Your task to perform on an android device: delete browsing data in the chrome app Image 0: 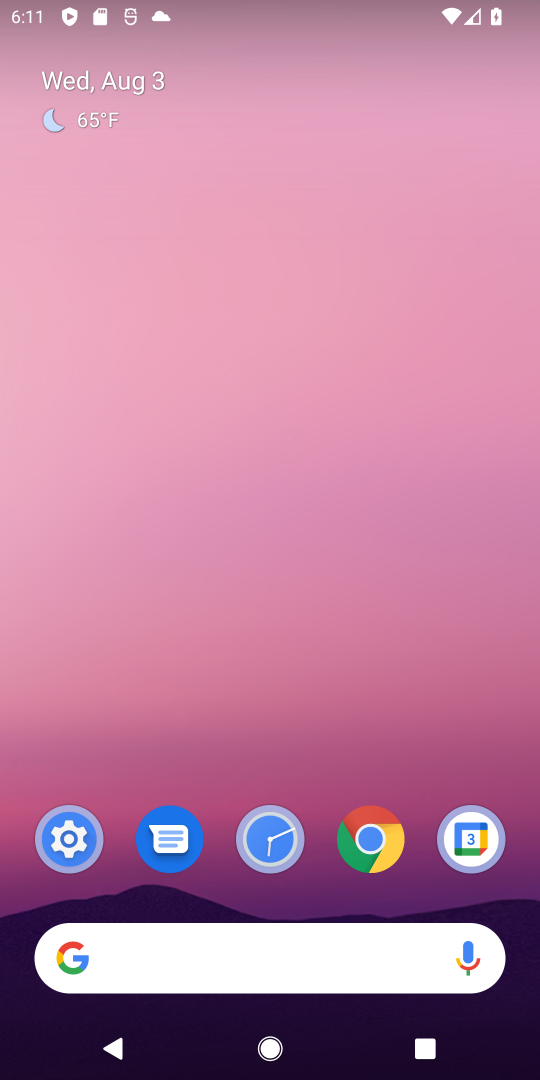
Step 0: click (362, 841)
Your task to perform on an android device: delete browsing data in the chrome app Image 1: 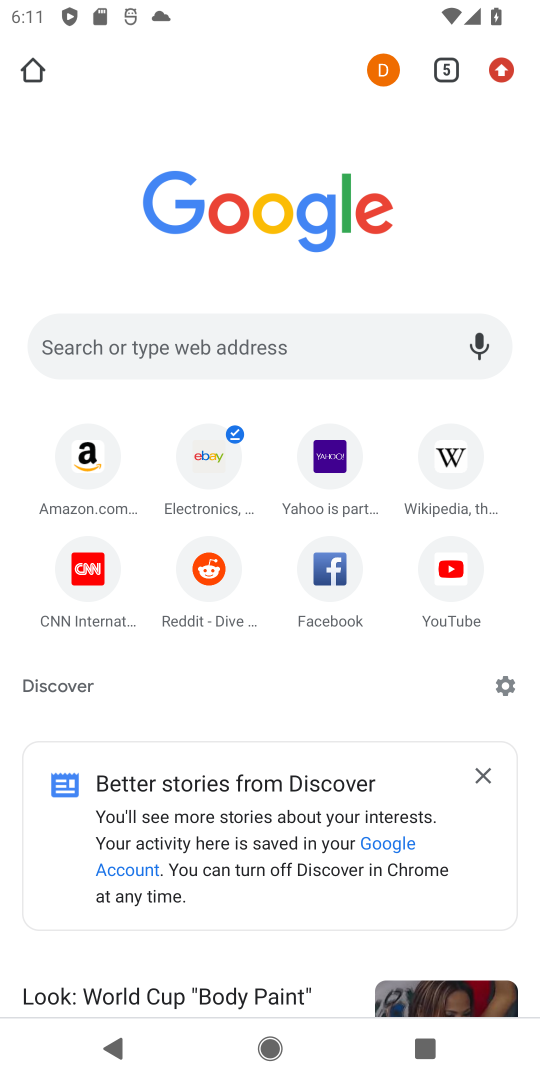
Step 1: drag from (493, 62) to (267, 370)
Your task to perform on an android device: delete browsing data in the chrome app Image 2: 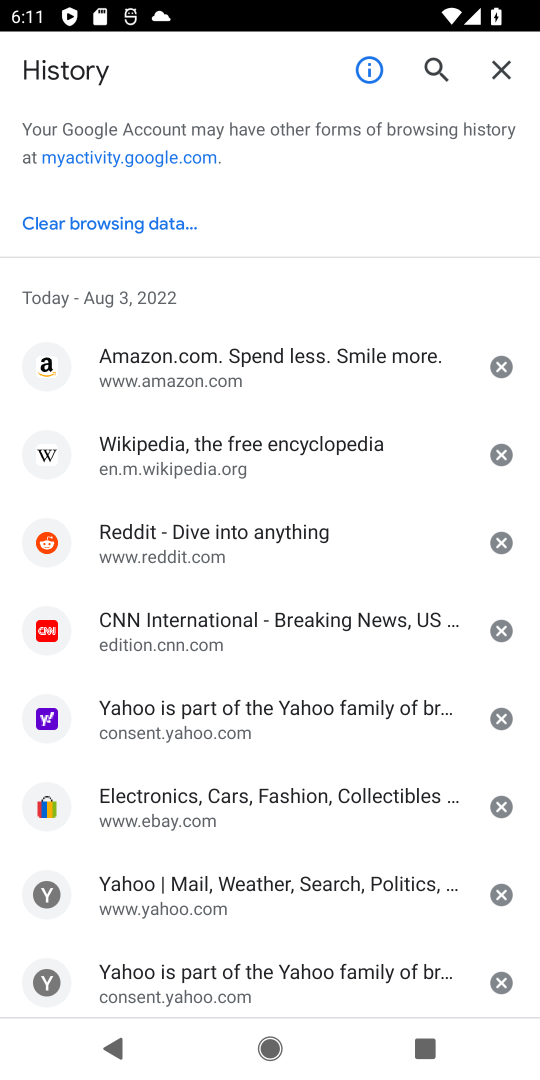
Step 2: click (120, 232)
Your task to perform on an android device: delete browsing data in the chrome app Image 3: 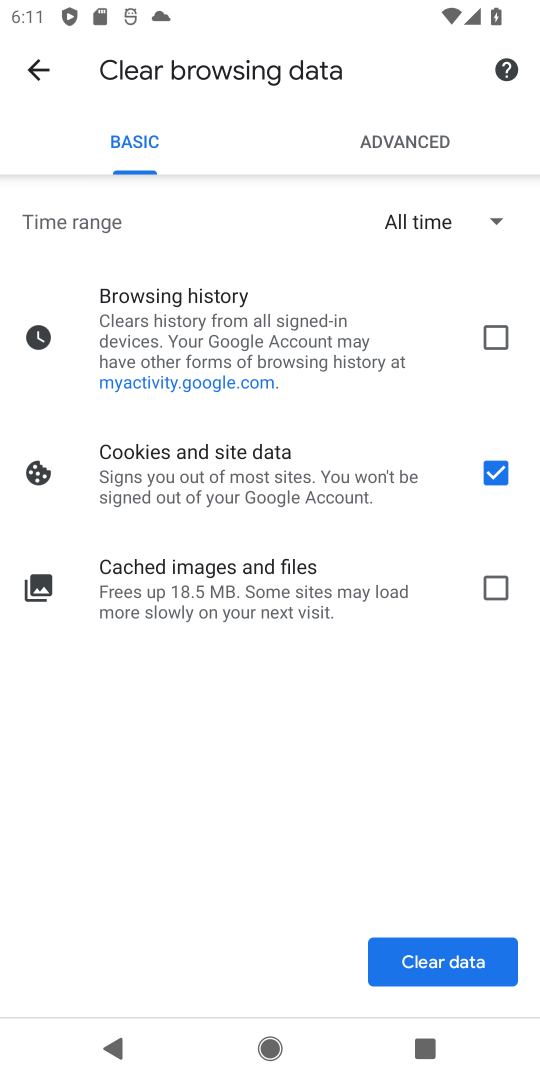
Step 3: click (490, 346)
Your task to perform on an android device: delete browsing data in the chrome app Image 4: 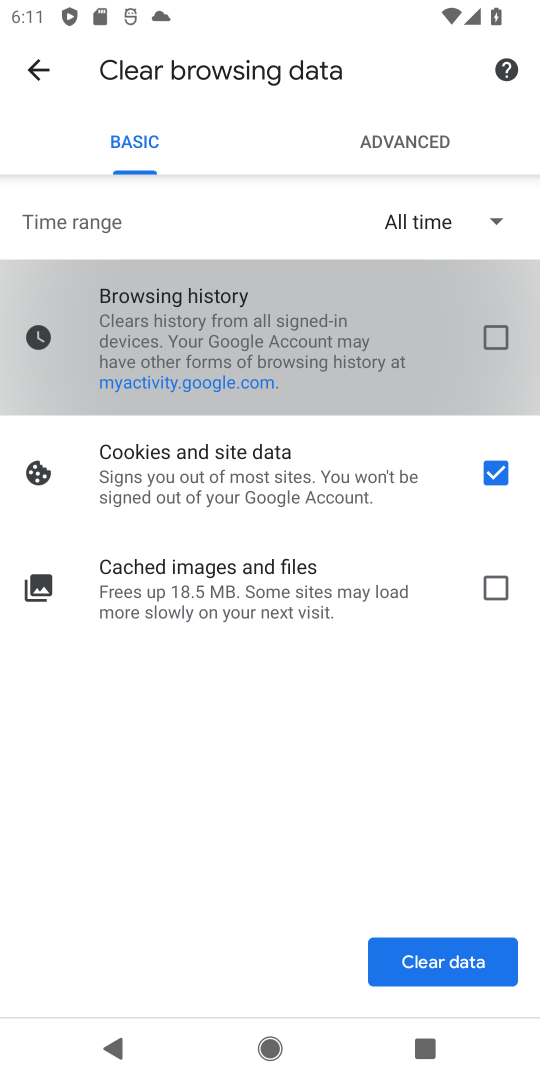
Step 4: click (495, 579)
Your task to perform on an android device: delete browsing data in the chrome app Image 5: 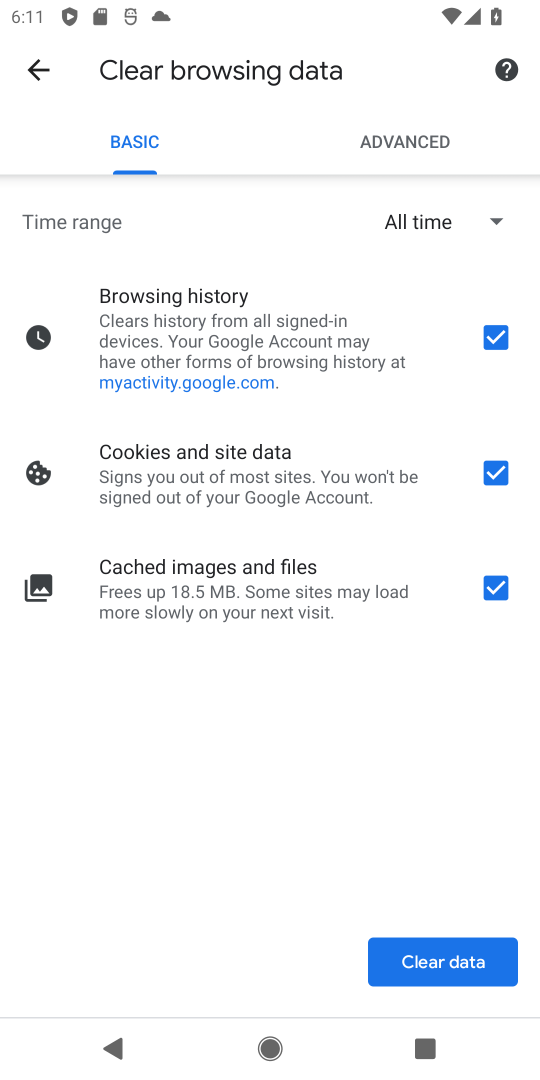
Step 5: click (454, 974)
Your task to perform on an android device: delete browsing data in the chrome app Image 6: 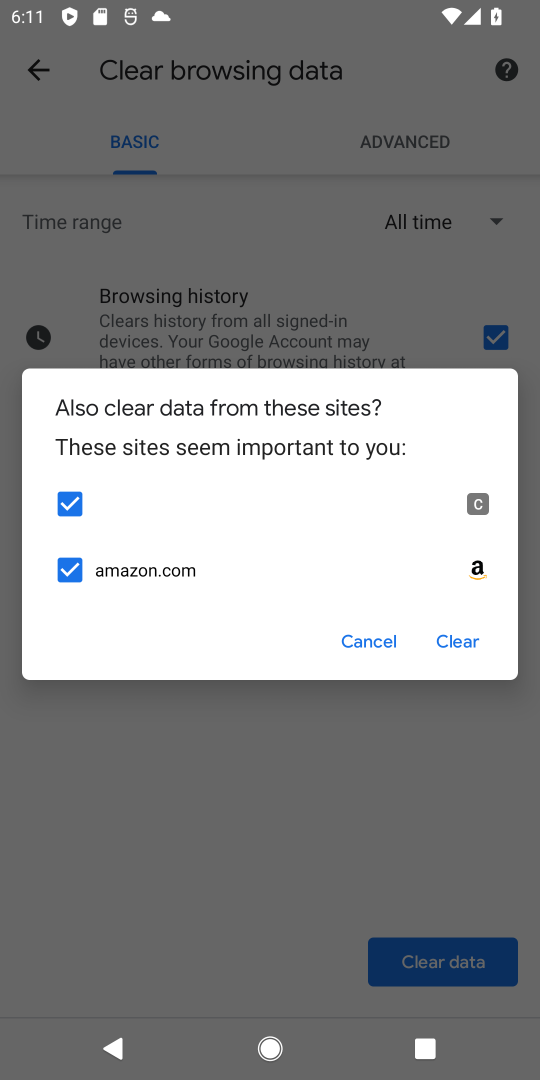
Step 6: click (443, 638)
Your task to perform on an android device: delete browsing data in the chrome app Image 7: 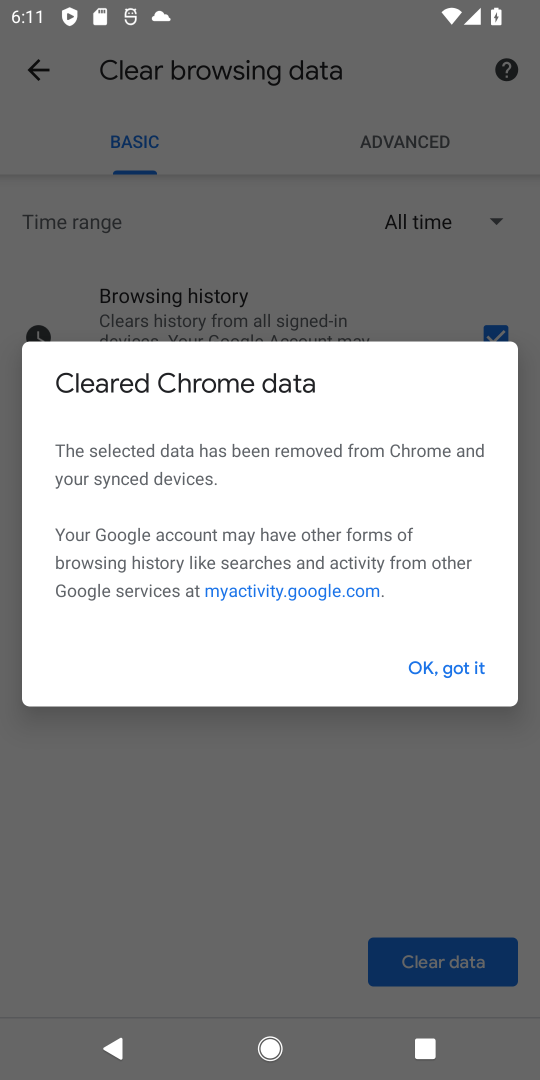
Step 7: click (462, 654)
Your task to perform on an android device: delete browsing data in the chrome app Image 8: 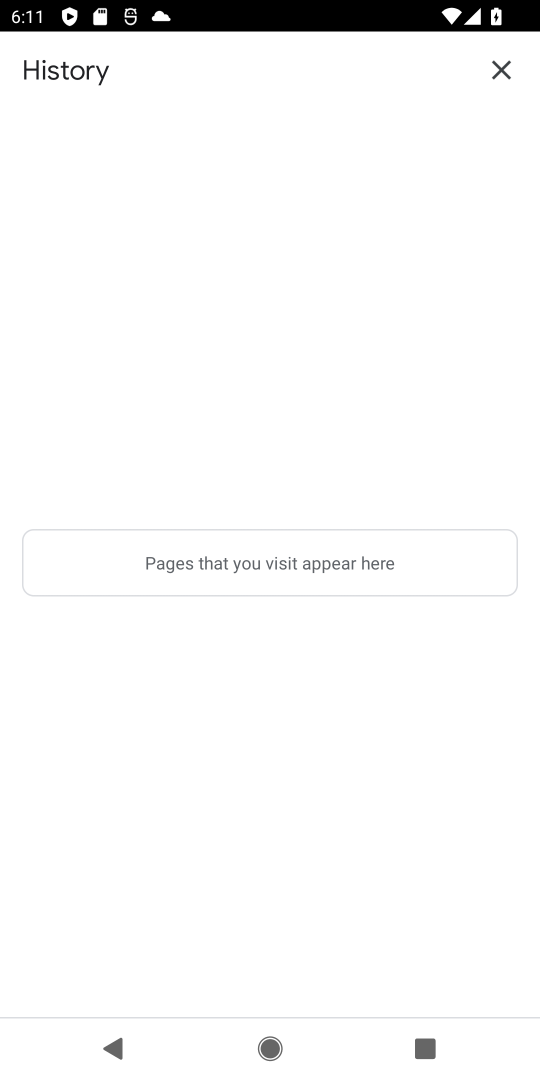
Step 8: task complete